Your task to perform on an android device: Go to calendar. Show me events next week Image 0: 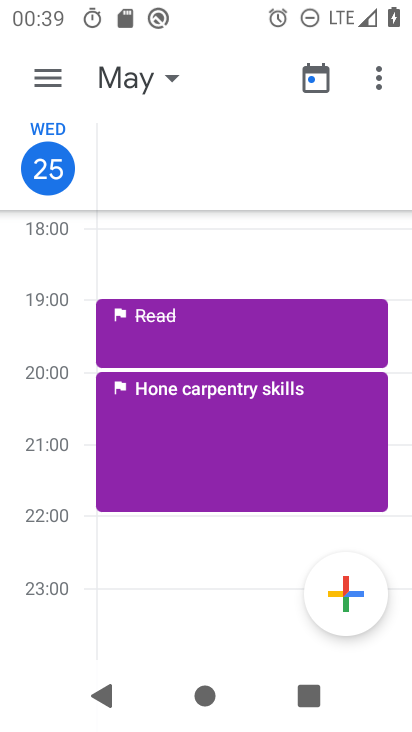
Step 0: press home button
Your task to perform on an android device: Go to calendar. Show me events next week Image 1: 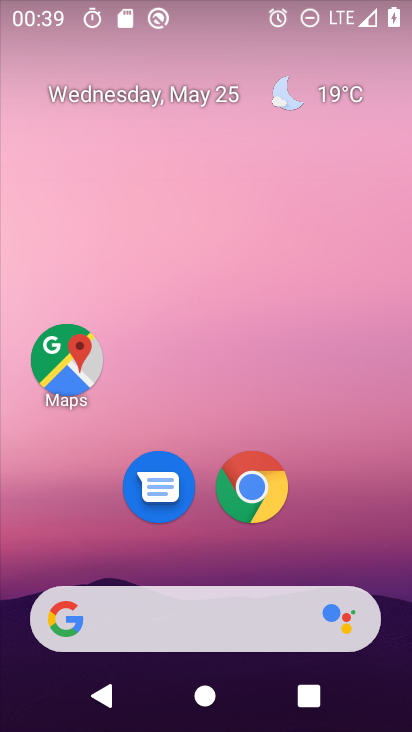
Step 1: drag from (315, 562) to (294, 2)
Your task to perform on an android device: Go to calendar. Show me events next week Image 2: 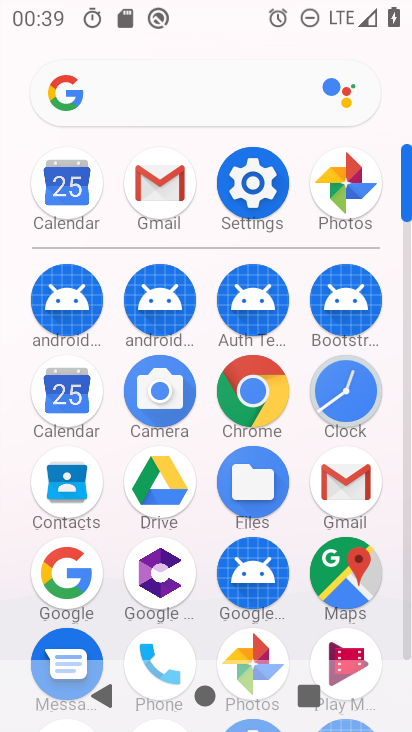
Step 2: click (82, 381)
Your task to perform on an android device: Go to calendar. Show me events next week Image 3: 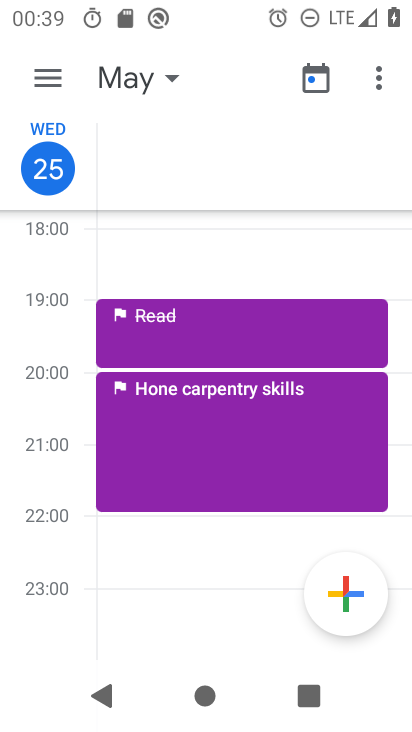
Step 3: click (32, 84)
Your task to perform on an android device: Go to calendar. Show me events next week Image 4: 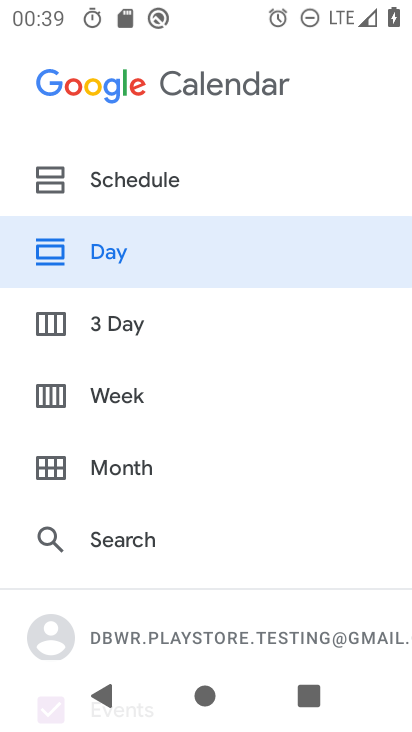
Step 4: click (75, 377)
Your task to perform on an android device: Go to calendar. Show me events next week Image 5: 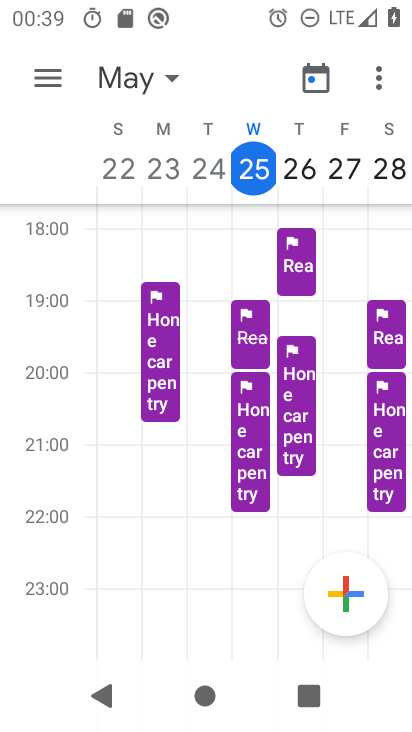
Step 5: task complete